Your task to perform on an android device: Do I have any events this weekend? Image 0: 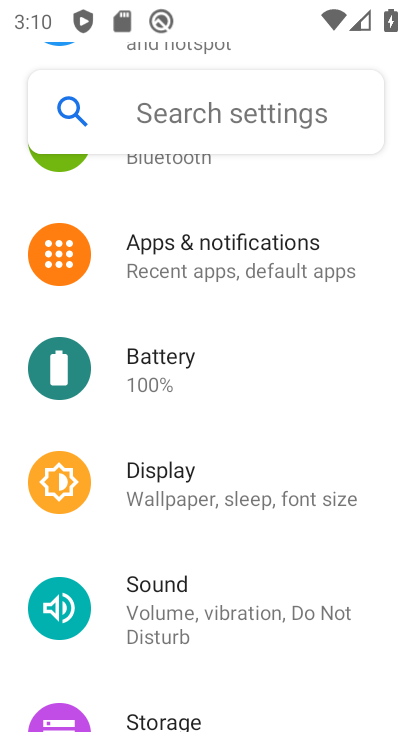
Step 0: press home button
Your task to perform on an android device: Do I have any events this weekend? Image 1: 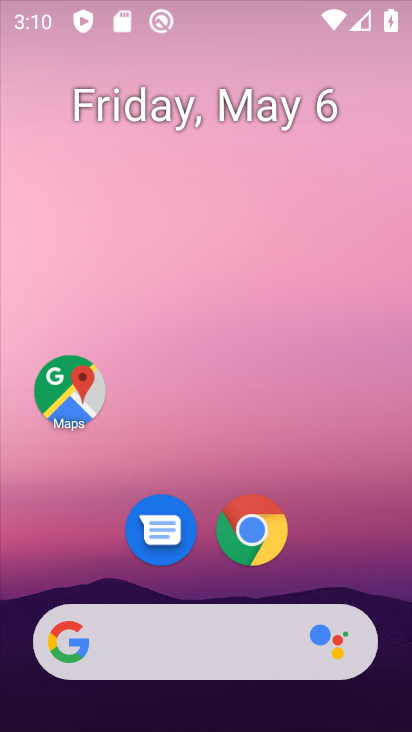
Step 1: drag from (278, 655) to (282, 85)
Your task to perform on an android device: Do I have any events this weekend? Image 2: 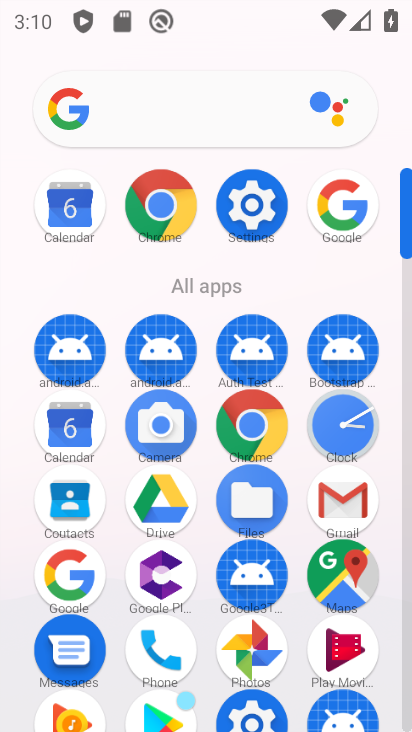
Step 2: drag from (204, 468) to (216, 291)
Your task to perform on an android device: Do I have any events this weekend? Image 3: 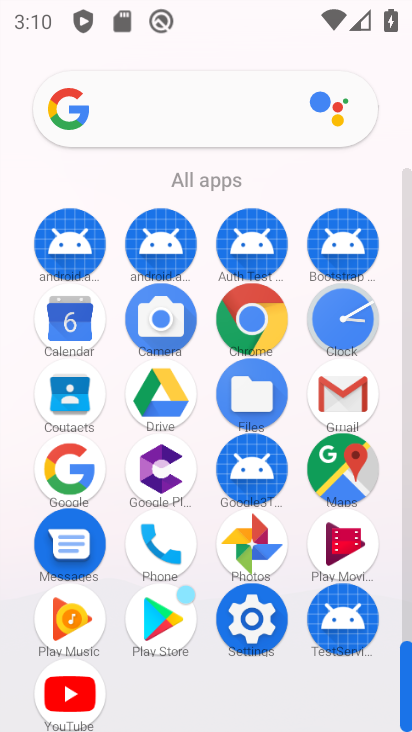
Step 3: drag from (222, 357) to (224, 518)
Your task to perform on an android device: Do I have any events this weekend? Image 4: 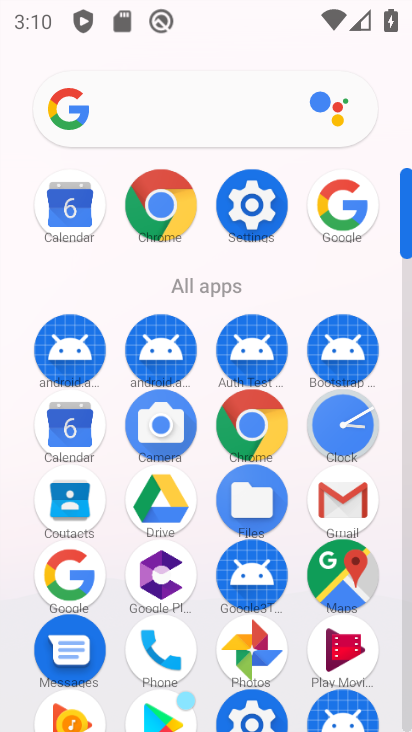
Step 4: click (247, 366)
Your task to perform on an android device: Do I have any events this weekend? Image 5: 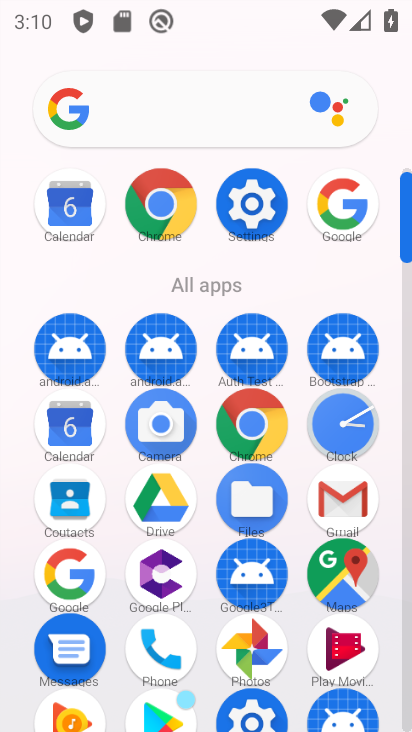
Step 5: drag from (131, 566) to (136, 313)
Your task to perform on an android device: Do I have any events this weekend? Image 6: 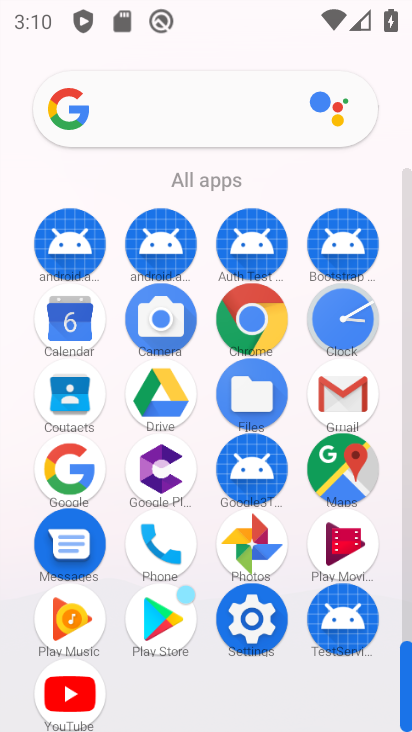
Step 6: click (74, 332)
Your task to perform on an android device: Do I have any events this weekend? Image 7: 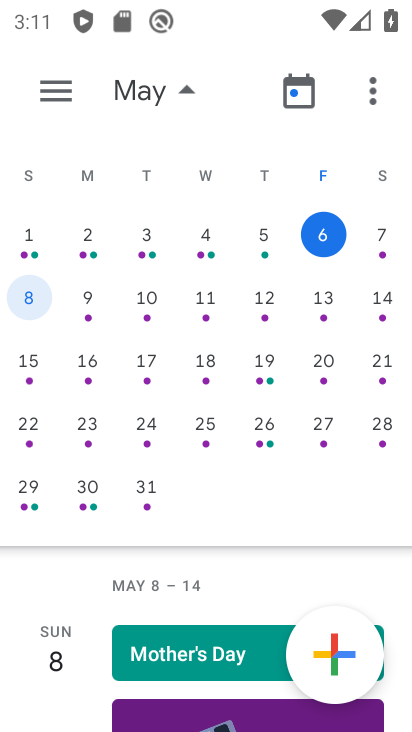
Step 7: task complete